Your task to perform on an android device: toggle data saver in the chrome app Image 0: 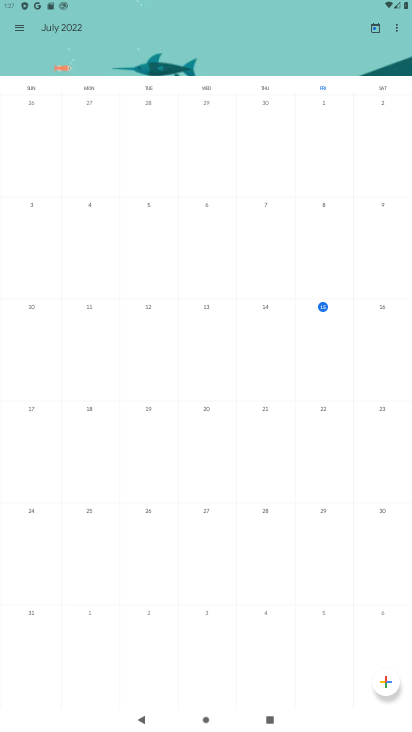
Step 0: press home button
Your task to perform on an android device: toggle data saver in the chrome app Image 1: 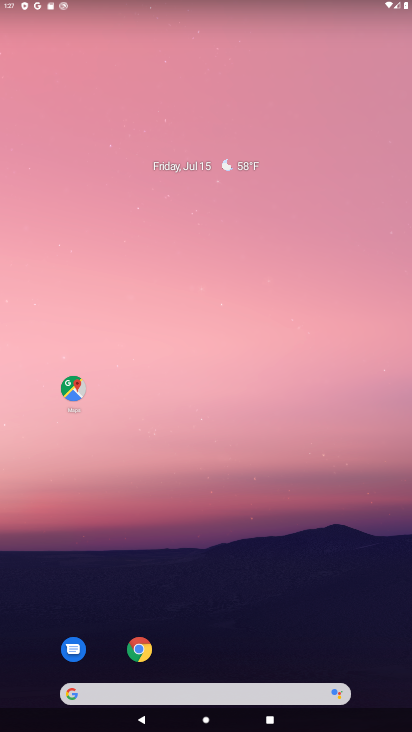
Step 1: drag from (217, 643) to (253, 160)
Your task to perform on an android device: toggle data saver in the chrome app Image 2: 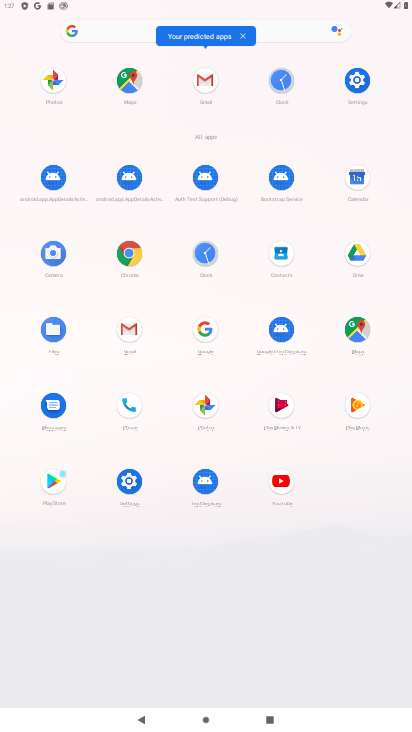
Step 2: click (128, 262)
Your task to perform on an android device: toggle data saver in the chrome app Image 3: 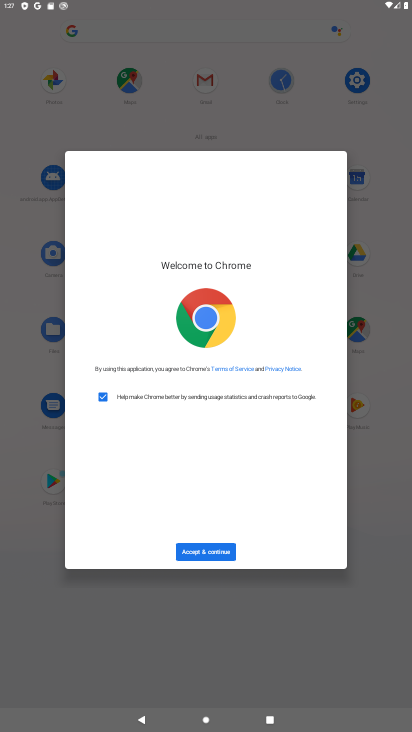
Step 3: click (228, 567)
Your task to perform on an android device: toggle data saver in the chrome app Image 4: 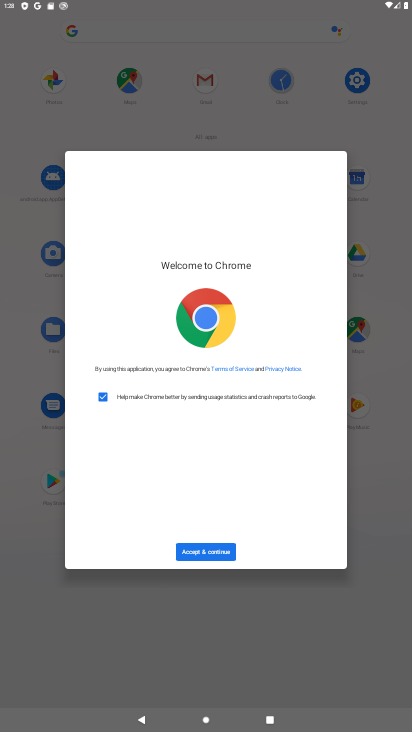
Step 4: click (208, 545)
Your task to perform on an android device: toggle data saver in the chrome app Image 5: 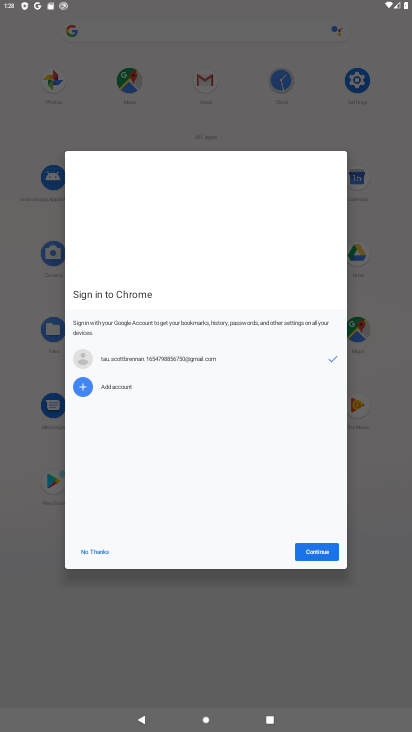
Step 5: click (322, 553)
Your task to perform on an android device: toggle data saver in the chrome app Image 6: 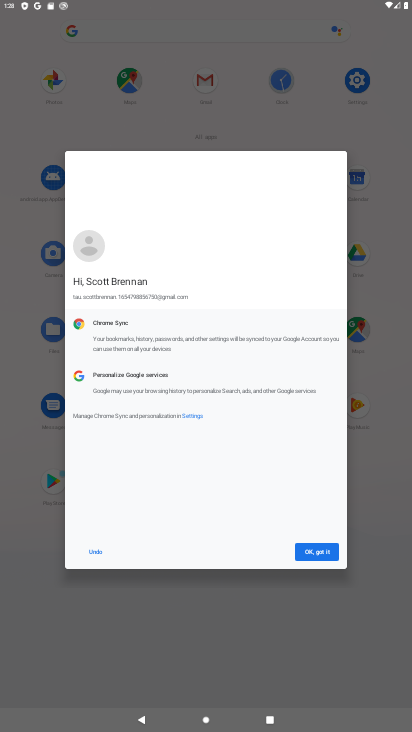
Step 6: click (322, 553)
Your task to perform on an android device: toggle data saver in the chrome app Image 7: 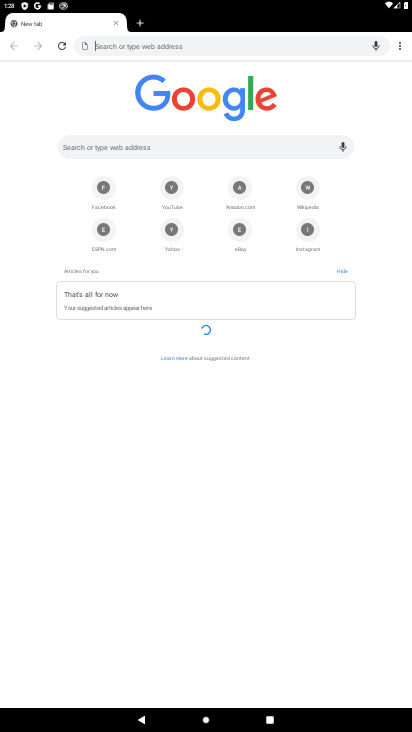
Step 7: drag from (397, 45) to (324, 214)
Your task to perform on an android device: toggle data saver in the chrome app Image 8: 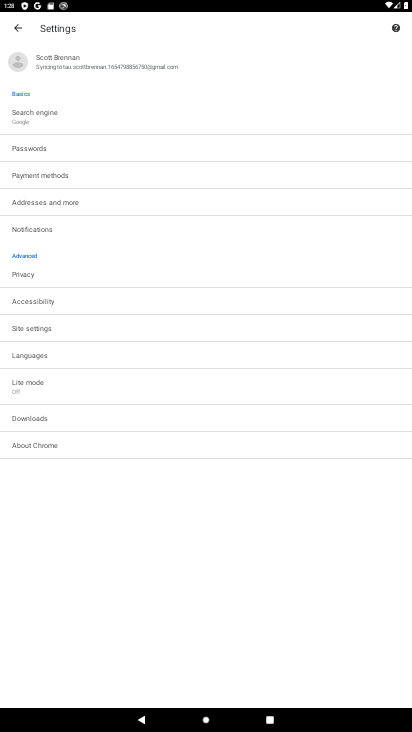
Step 8: click (60, 388)
Your task to perform on an android device: toggle data saver in the chrome app Image 9: 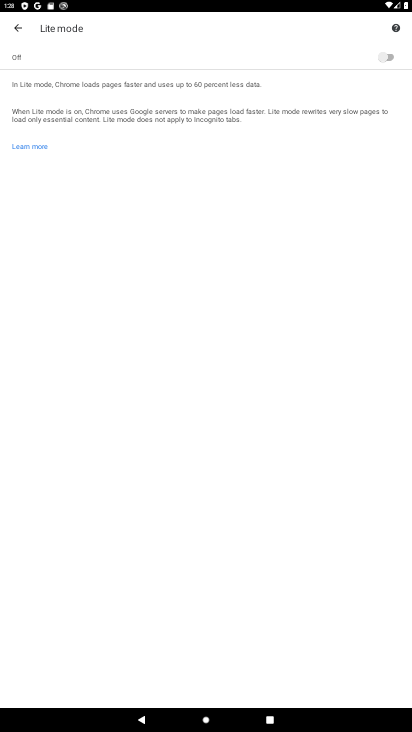
Step 9: click (398, 60)
Your task to perform on an android device: toggle data saver in the chrome app Image 10: 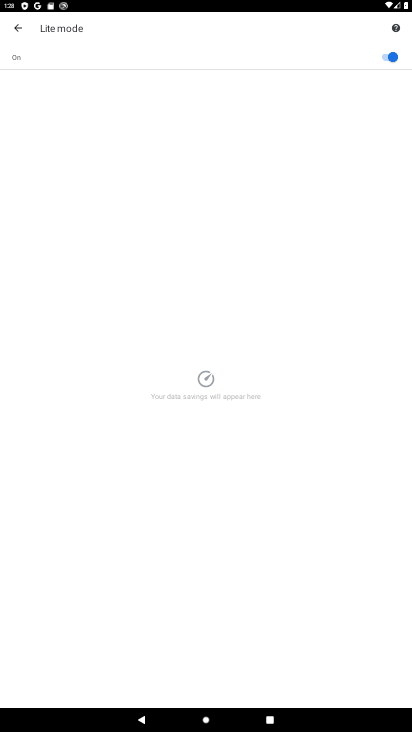
Step 10: task complete